Your task to perform on an android device: change the clock display to analog Image 0: 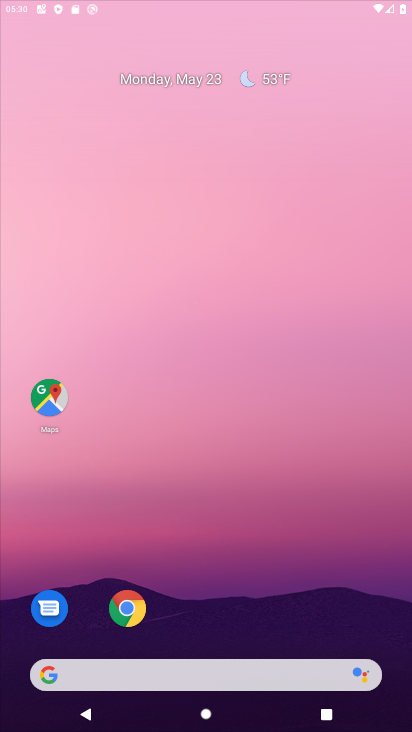
Step 0: drag from (243, 42) to (166, 4)
Your task to perform on an android device: change the clock display to analog Image 1: 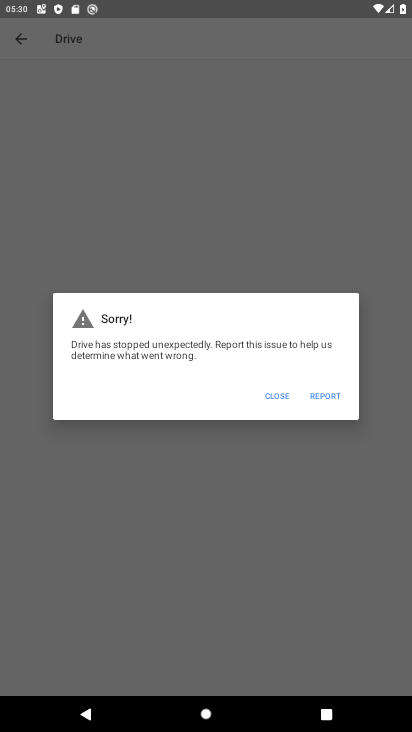
Step 1: press home button
Your task to perform on an android device: change the clock display to analog Image 2: 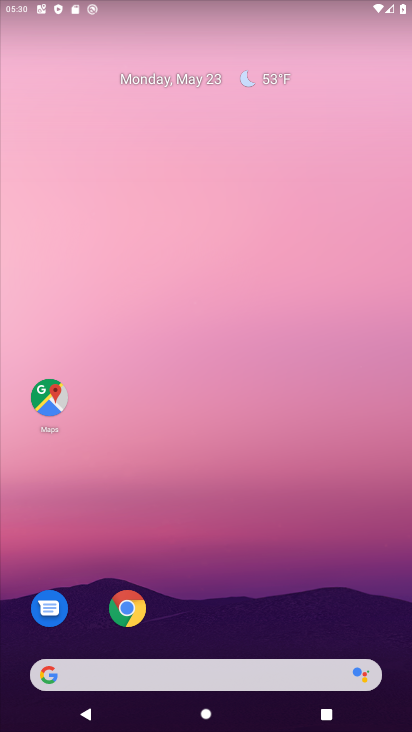
Step 2: drag from (188, 632) to (199, 10)
Your task to perform on an android device: change the clock display to analog Image 3: 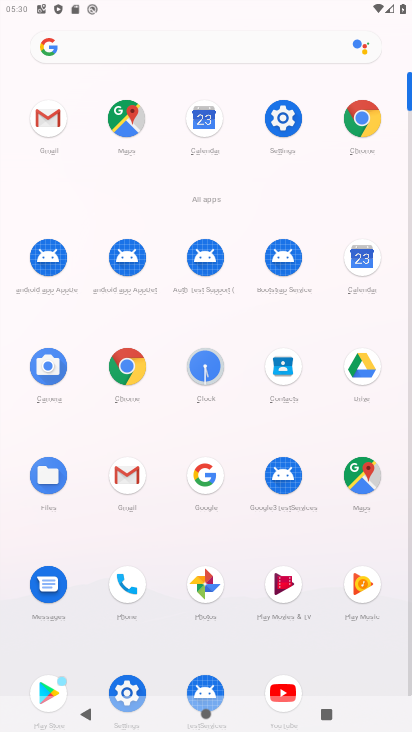
Step 3: click (212, 382)
Your task to perform on an android device: change the clock display to analog Image 4: 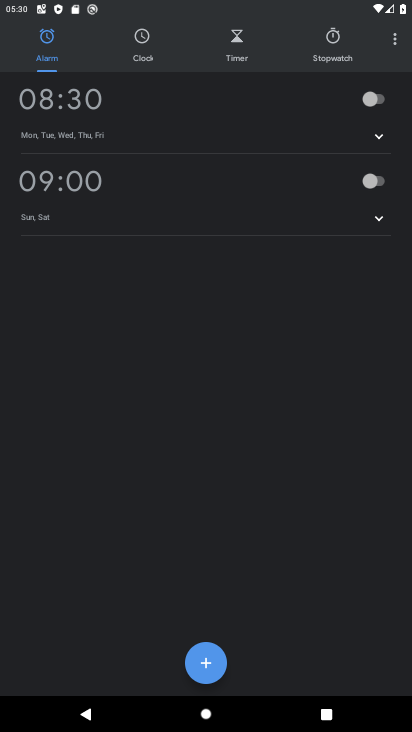
Step 4: click (387, 33)
Your task to perform on an android device: change the clock display to analog Image 5: 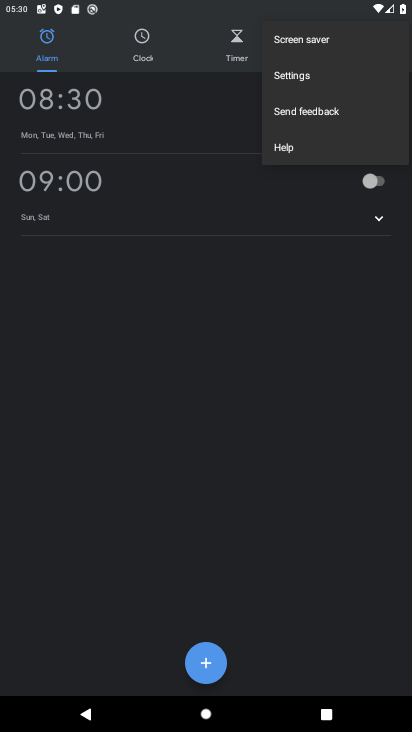
Step 5: click (296, 76)
Your task to perform on an android device: change the clock display to analog Image 6: 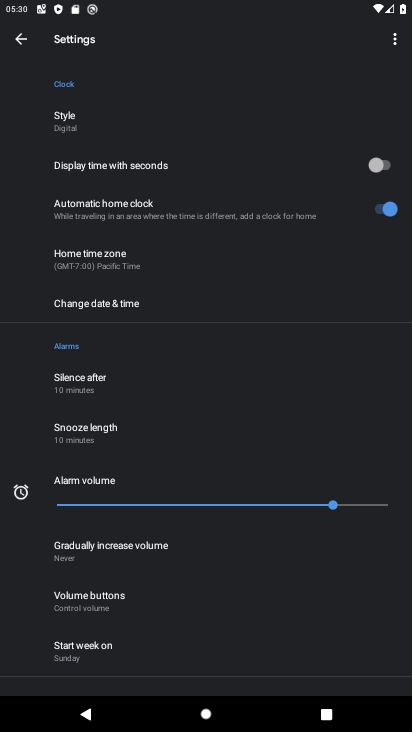
Step 6: click (112, 126)
Your task to perform on an android device: change the clock display to analog Image 7: 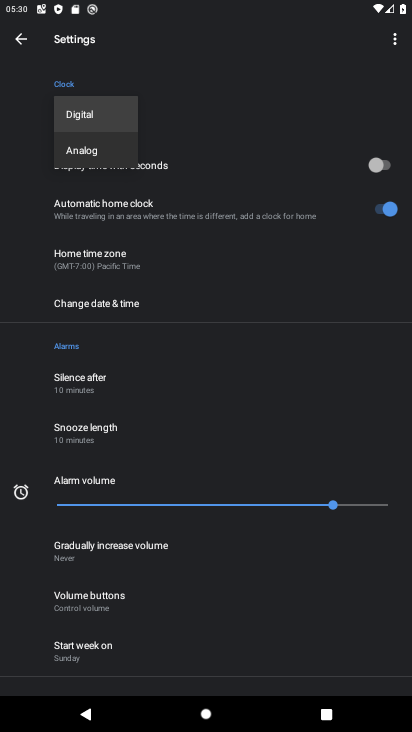
Step 7: click (83, 153)
Your task to perform on an android device: change the clock display to analog Image 8: 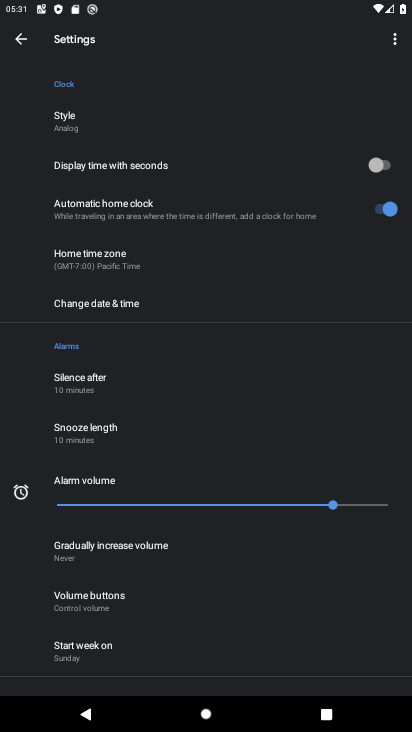
Step 8: task complete